Your task to perform on an android device: toggle priority inbox in the gmail app Image 0: 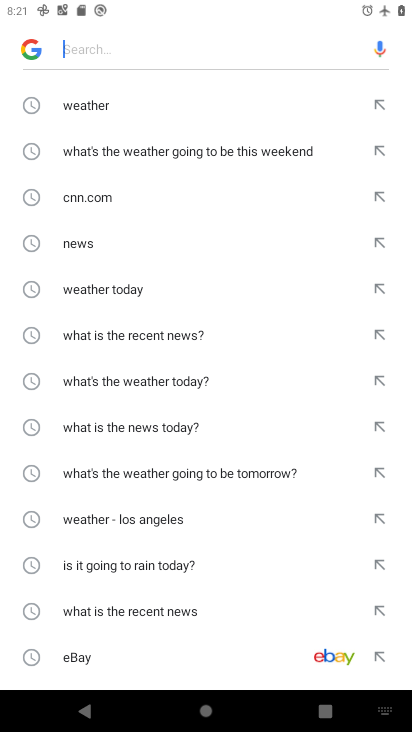
Step 0: press home button
Your task to perform on an android device: toggle priority inbox in the gmail app Image 1: 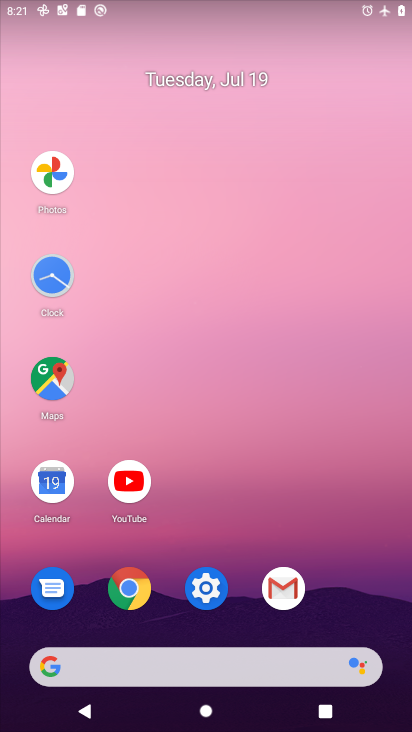
Step 1: click (293, 586)
Your task to perform on an android device: toggle priority inbox in the gmail app Image 2: 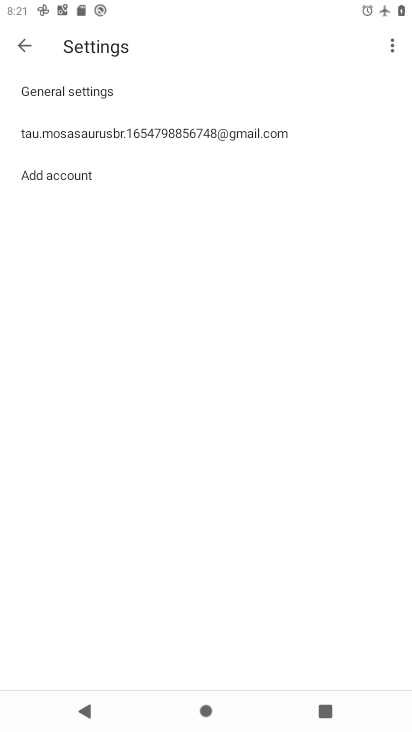
Step 2: click (74, 131)
Your task to perform on an android device: toggle priority inbox in the gmail app Image 3: 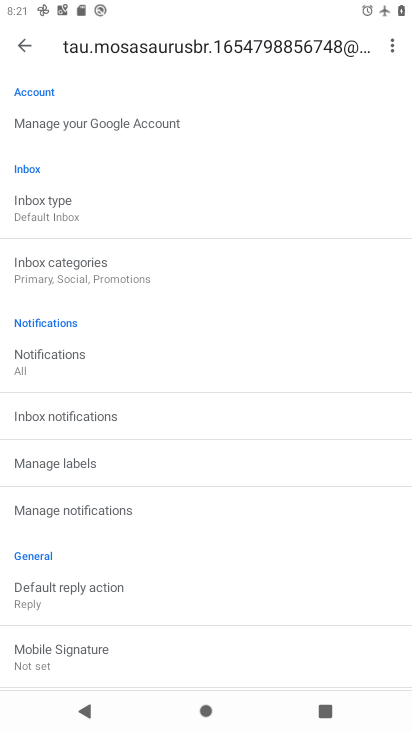
Step 3: click (41, 208)
Your task to perform on an android device: toggle priority inbox in the gmail app Image 4: 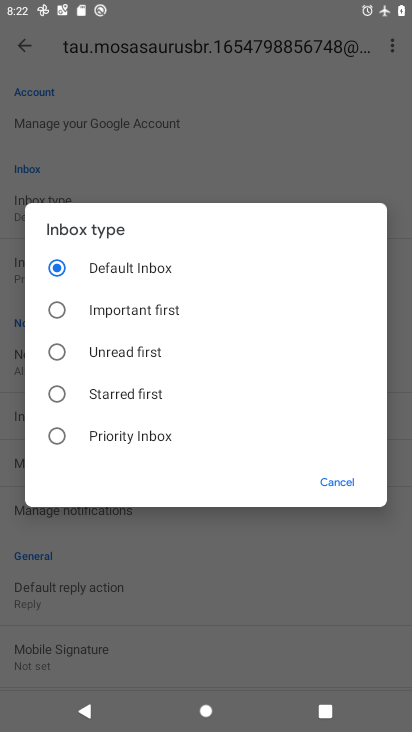
Step 4: click (53, 428)
Your task to perform on an android device: toggle priority inbox in the gmail app Image 5: 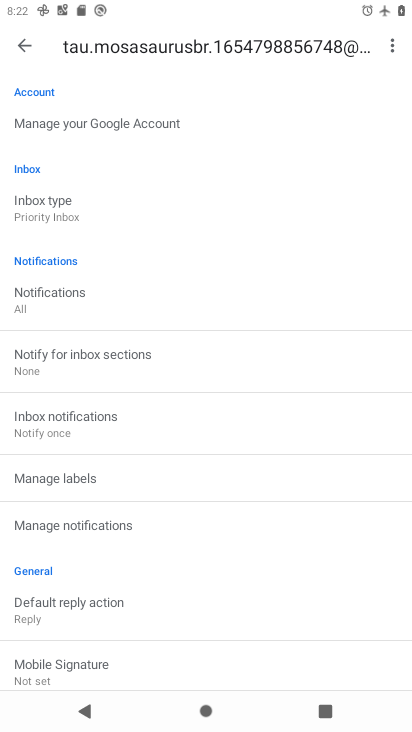
Step 5: task complete